Your task to perform on an android device: Do I have any events today? Image 0: 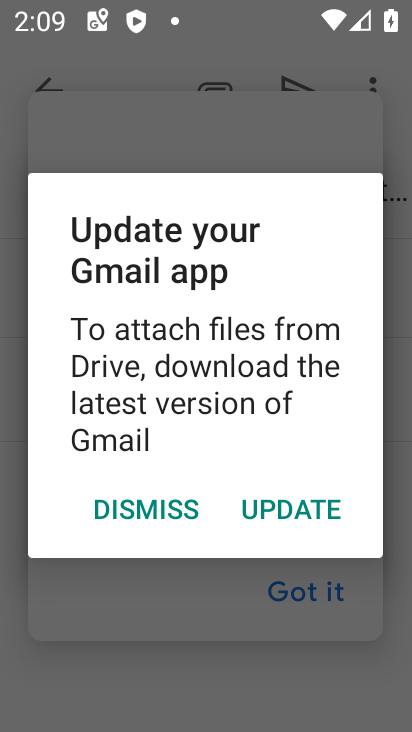
Step 0: press back button
Your task to perform on an android device: Do I have any events today? Image 1: 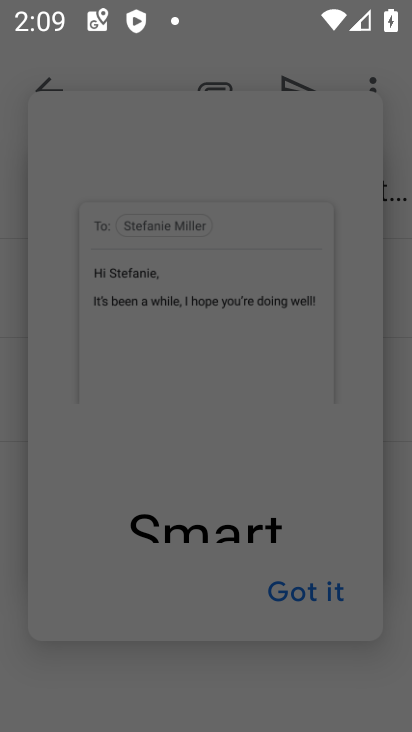
Step 1: press home button
Your task to perform on an android device: Do I have any events today? Image 2: 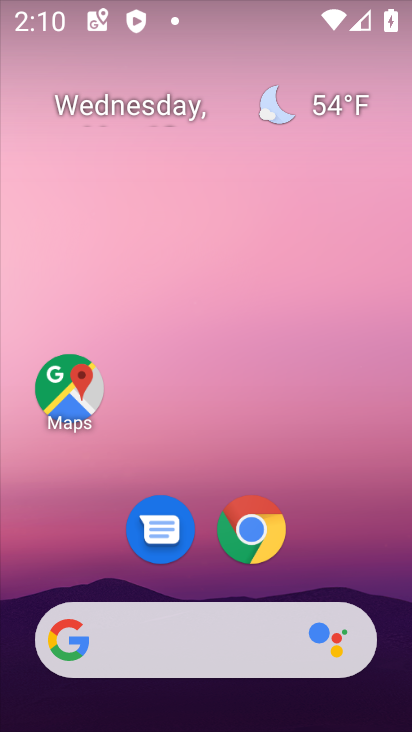
Step 2: drag from (216, 521) to (277, 33)
Your task to perform on an android device: Do I have any events today? Image 3: 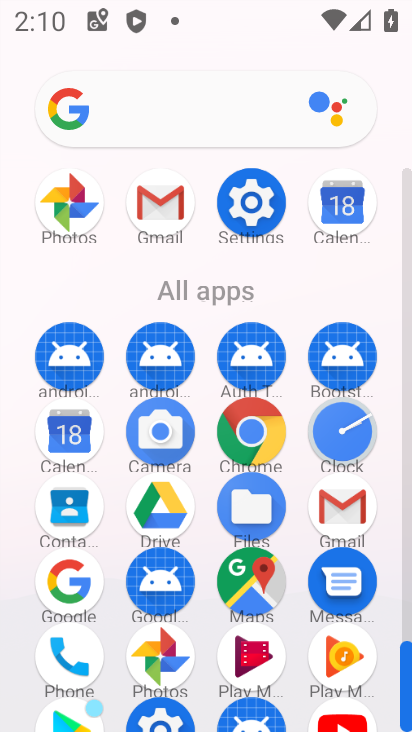
Step 3: click (74, 430)
Your task to perform on an android device: Do I have any events today? Image 4: 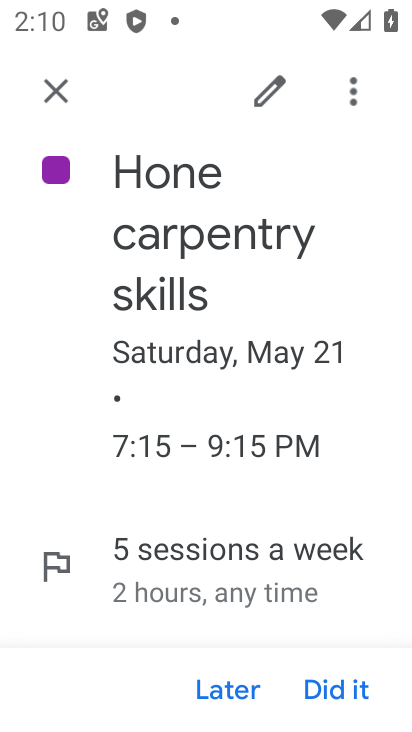
Step 4: click (233, 693)
Your task to perform on an android device: Do I have any events today? Image 5: 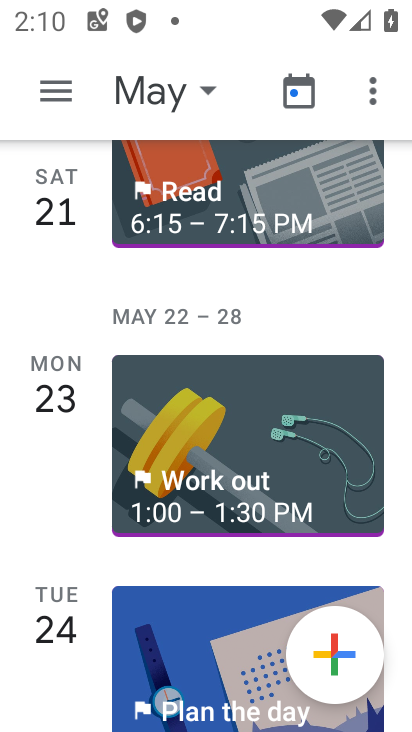
Step 5: task complete